Your task to perform on an android device: Go to location settings Image 0: 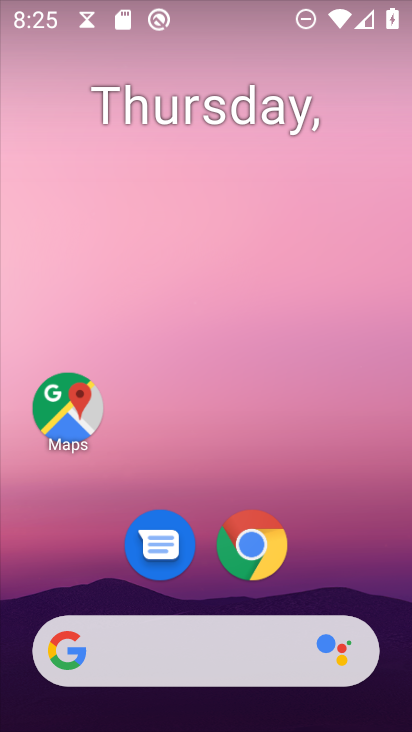
Step 0: drag from (343, 566) to (248, 52)
Your task to perform on an android device: Go to location settings Image 1: 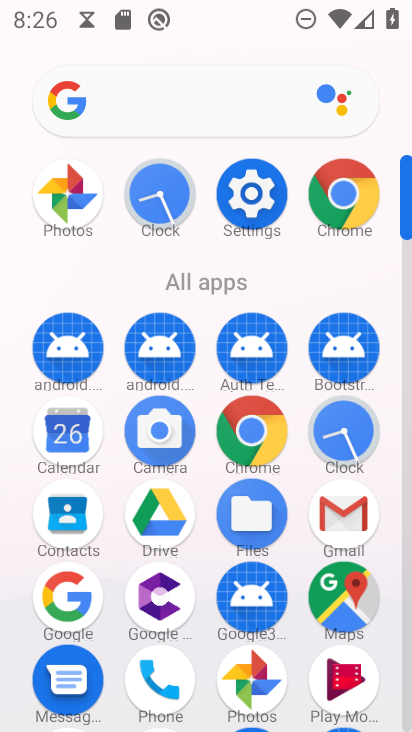
Step 1: click (249, 194)
Your task to perform on an android device: Go to location settings Image 2: 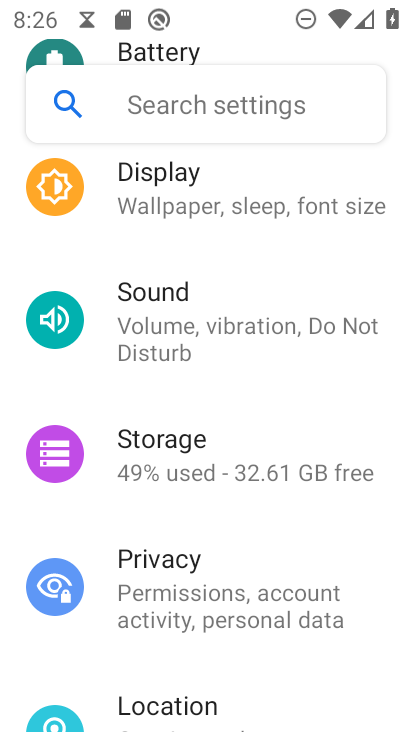
Step 2: drag from (218, 511) to (237, 349)
Your task to perform on an android device: Go to location settings Image 3: 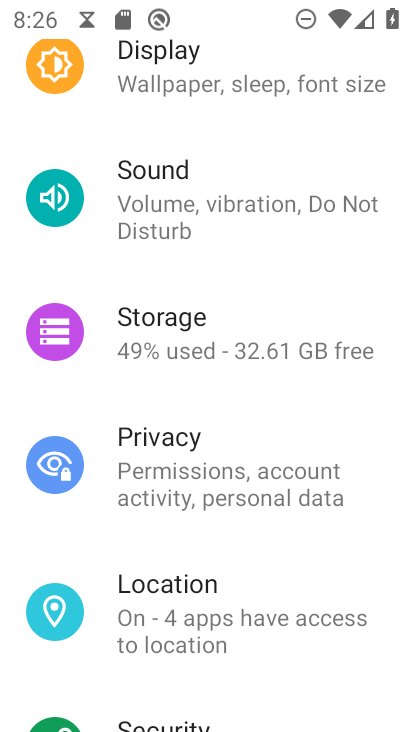
Step 3: click (209, 603)
Your task to perform on an android device: Go to location settings Image 4: 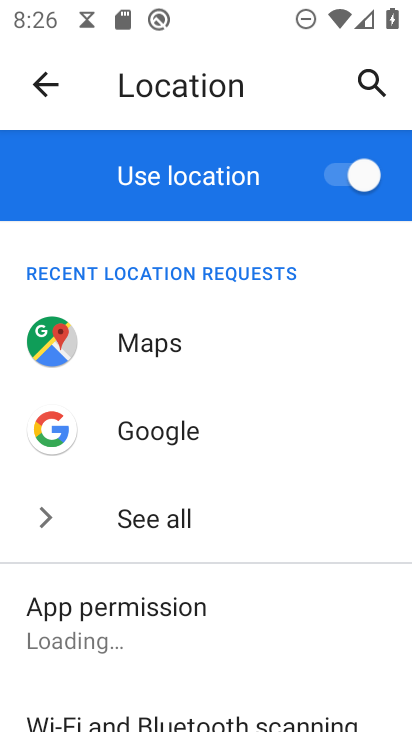
Step 4: task complete